Your task to perform on an android device: add a contact Image 0: 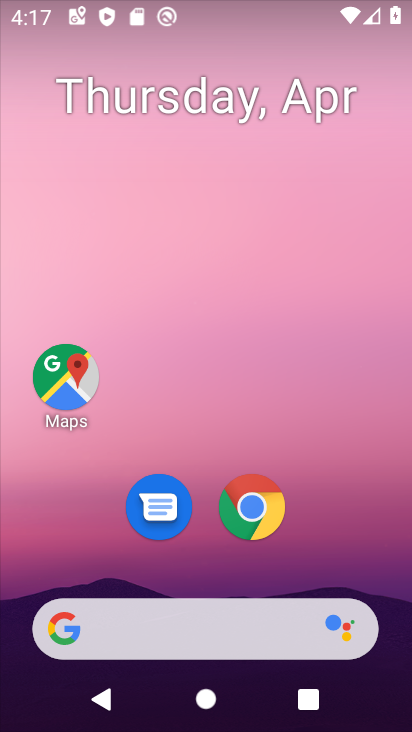
Step 0: drag from (326, 539) to (306, 18)
Your task to perform on an android device: add a contact Image 1: 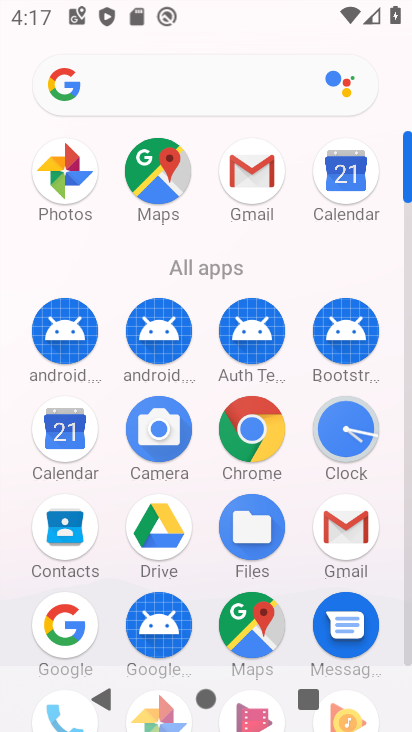
Step 1: click (59, 529)
Your task to perform on an android device: add a contact Image 2: 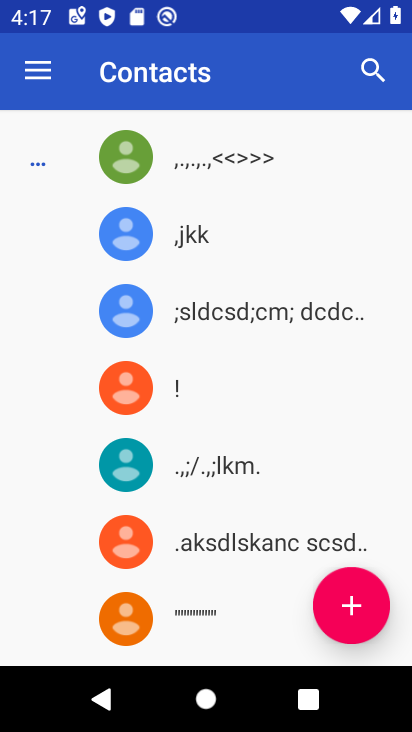
Step 2: click (338, 599)
Your task to perform on an android device: add a contact Image 3: 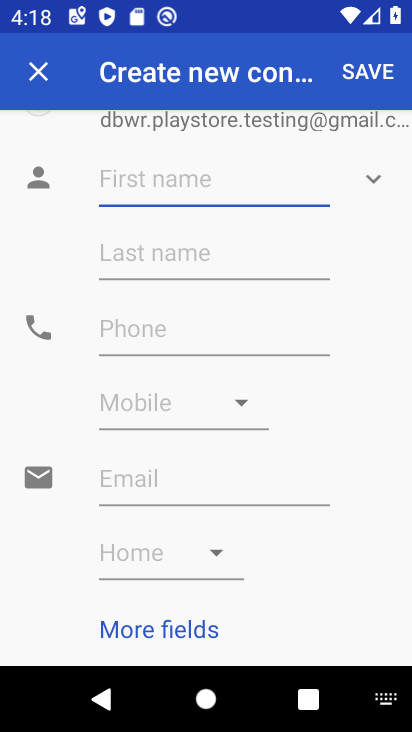
Step 3: type "subhangi"
Your task to perform on an android device: add a contact Image 4: 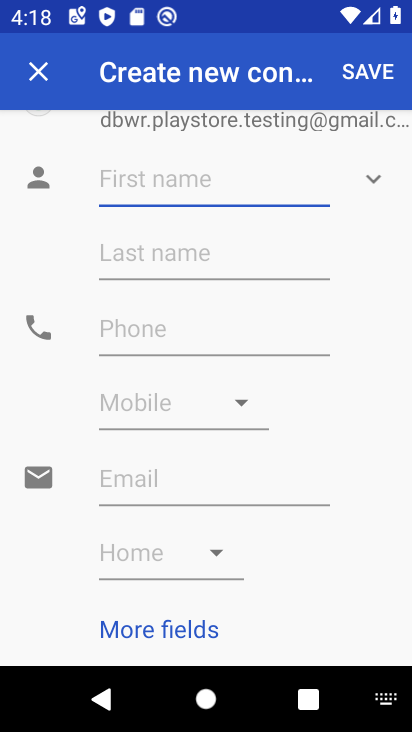
Step 4: click (233, 350)
Your task to perform on an android device: add a contact Image 5: 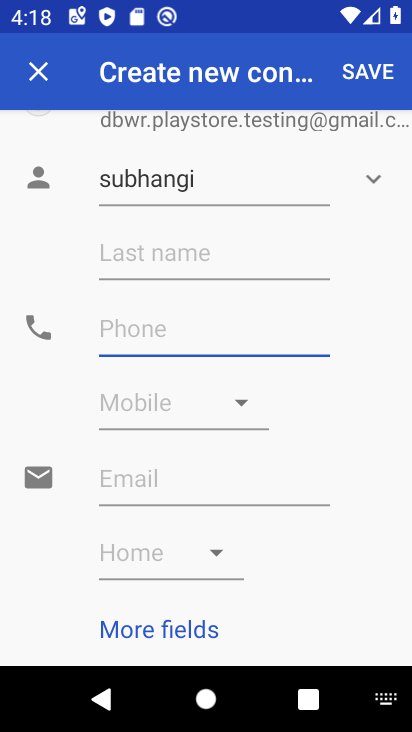
Step 5: click (330, 449)
Your task to perform on an android device: add a contact Image 6: 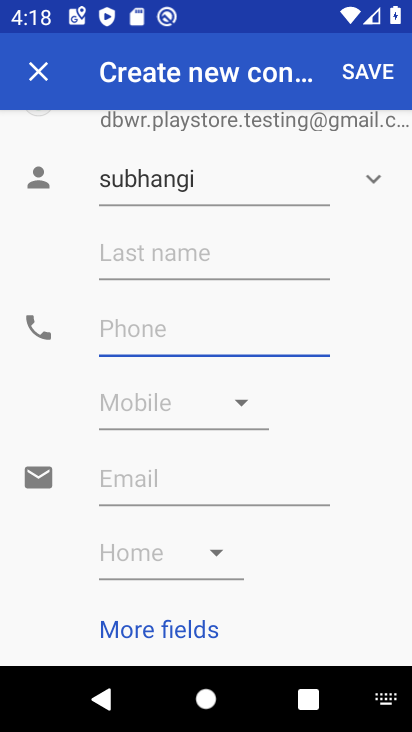
Step 6: type "8976545678"
Your task to perform on an android device: add a contact Image 7: 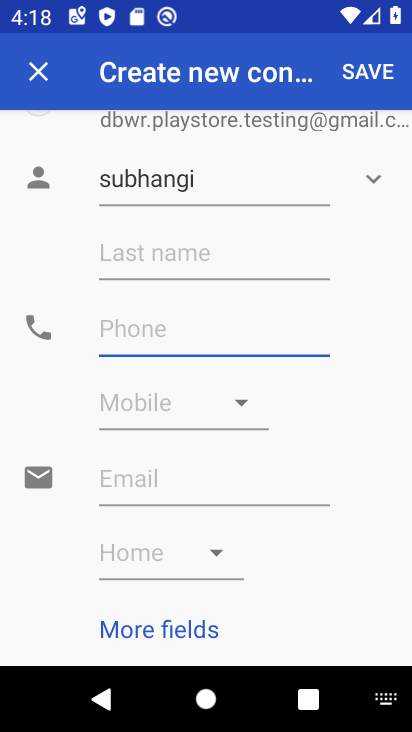
Step 7: click (330, 447)
Your task to perform on an android device: add a contact Image 8: 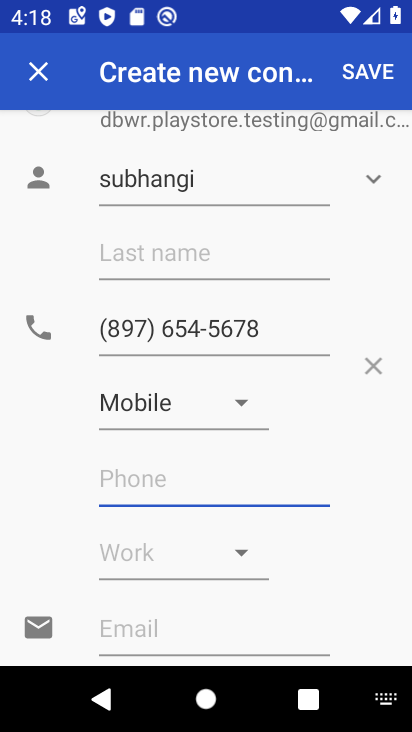
Step 8: click (362, 79)
Your task to perform on an android device: add a contact Image 9: 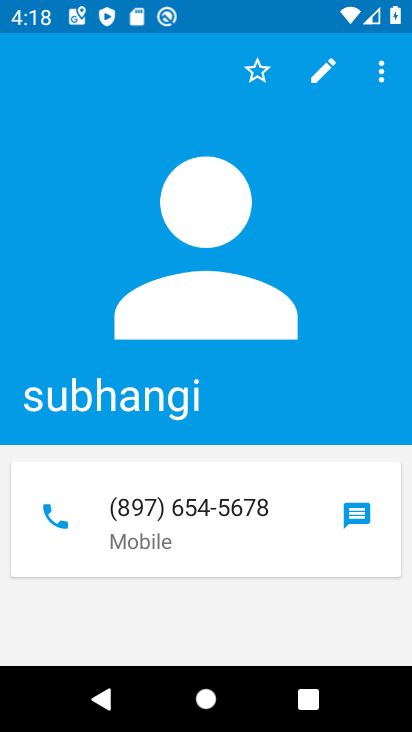
Step 9: task complete